Your task to perform on an android device: Go to privacy settings Image 0: 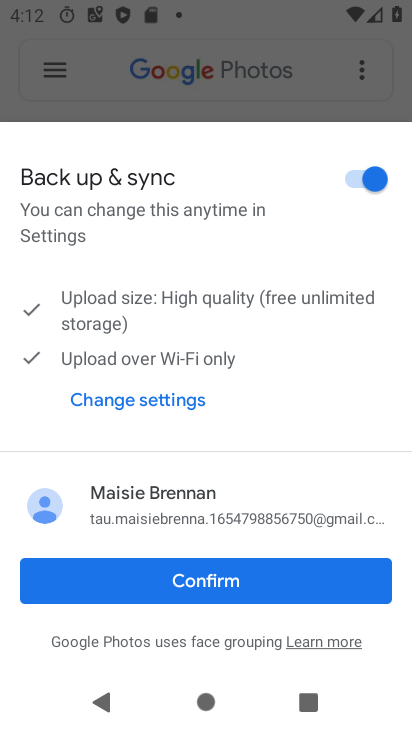
Step 0: press home button
Your task to perform on an android device: Go to privacy settings Image 1: 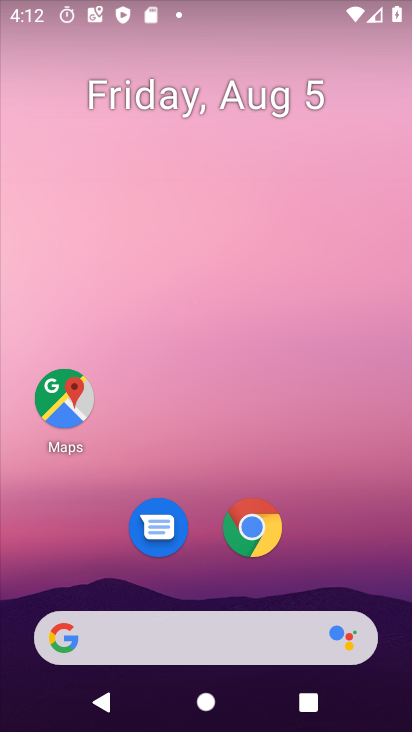
Step 1: drag from (199, 582) to (232, 63)
Your task to perform on an android device: Go to privacy settings Image 2: 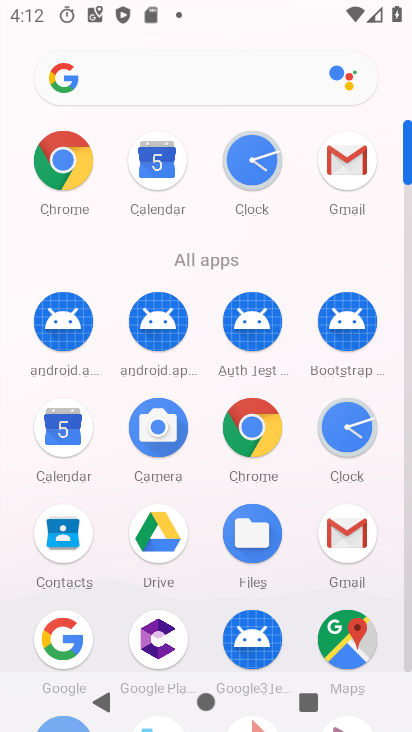
Step 2: drag from (202, 493) to (194, 164)
Your task to perform on an android device: Go to privacy settings Image 3: 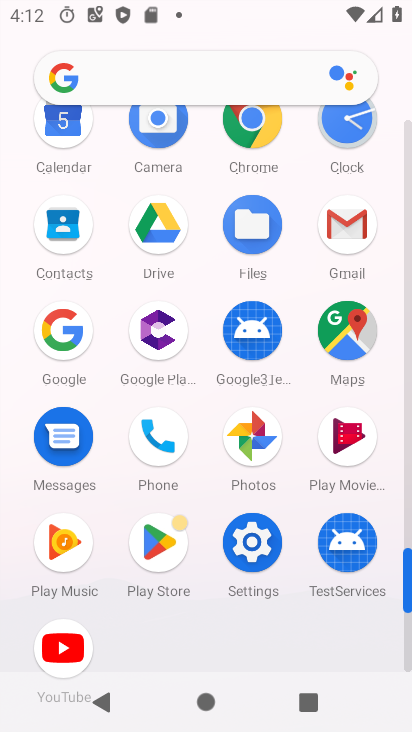
Step 3: click (249, 535)
Your task to perform on an android device: Go to privacy settings Image 4: 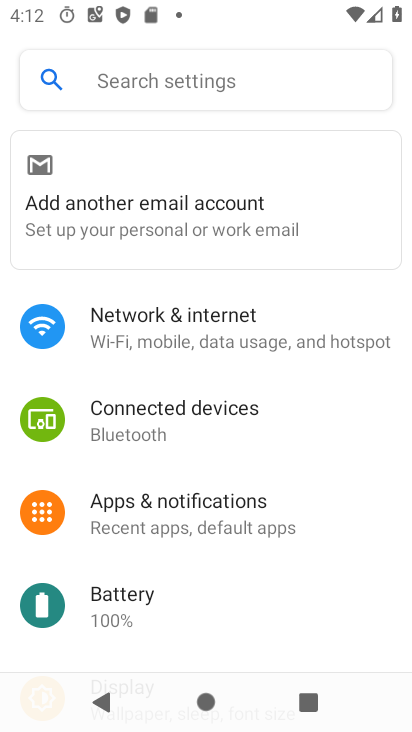
Step 4: drag from (189, 620) to (193, 145)
Your task to perform on an android device: Go to privacy settings Image 5: 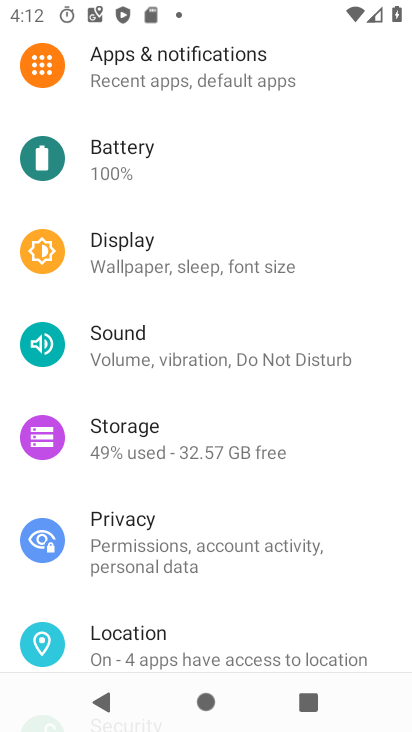
Step 5: click (175, 520)
Your task to perform on an android device: Go to privacy settings Image 6: 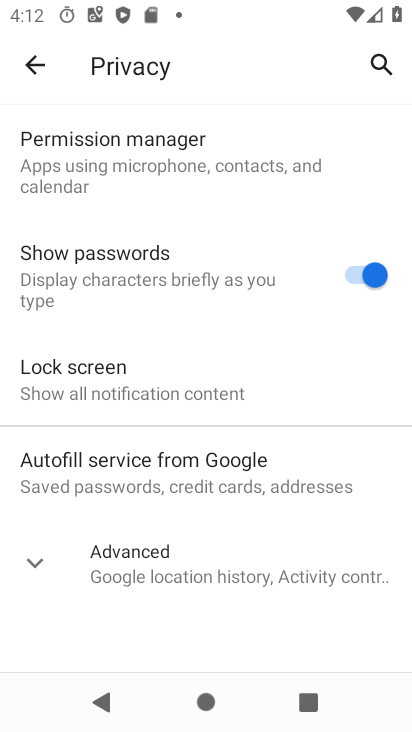
Step 6: click (17, 562)
Your task to perform on an android device: Go to privacy settings Image 7: 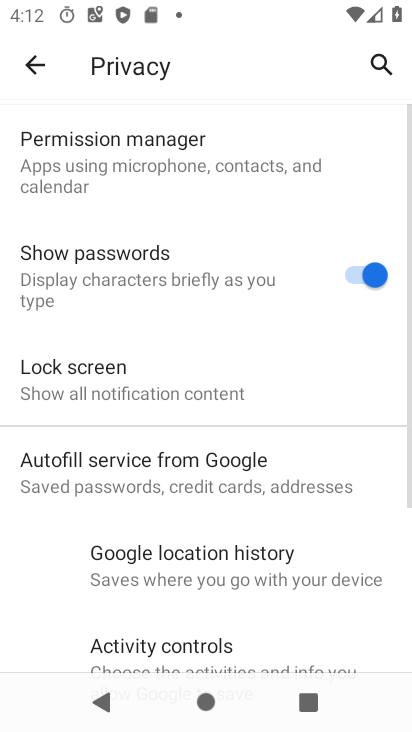
Step 7: task complete